Your task to perform on an android device: Open privacy settings Image 0: 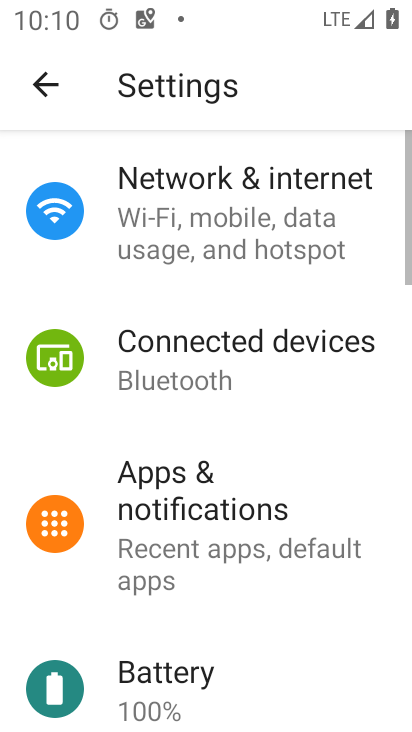
Step 0: press home button
Your task to perform on an android device: Open privacy settings Image 1: 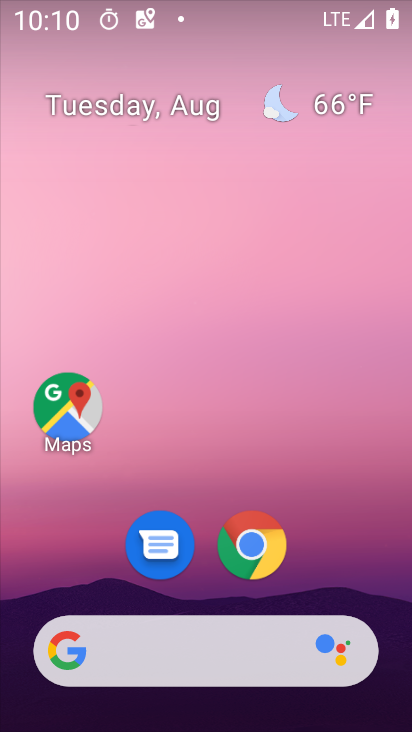
Step 1: drag from (213, 657) to (224, 231)
Your task to perform on an android device: Open privacy settings Image 2: 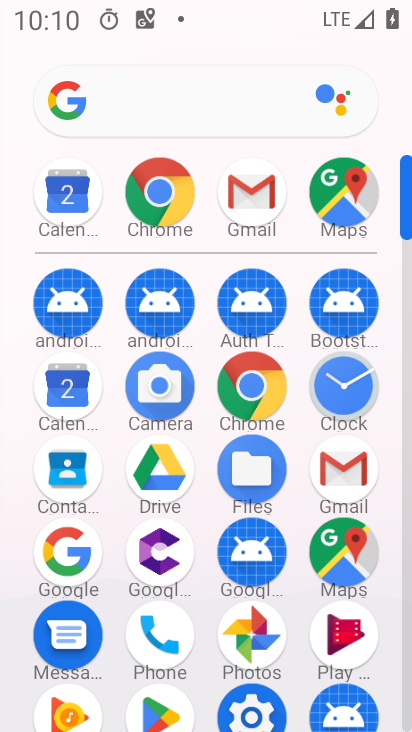
Step 2: drag from (252, 497) to (249, 75)
Your task to perform on an android device: Open privacy settings Image 3: 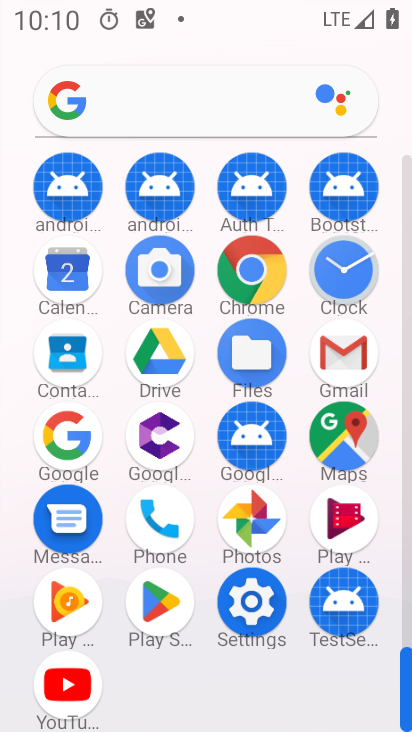
Step 3: click (254, 615)
Your task to perform on an android device: Open privacy settings Image 4: 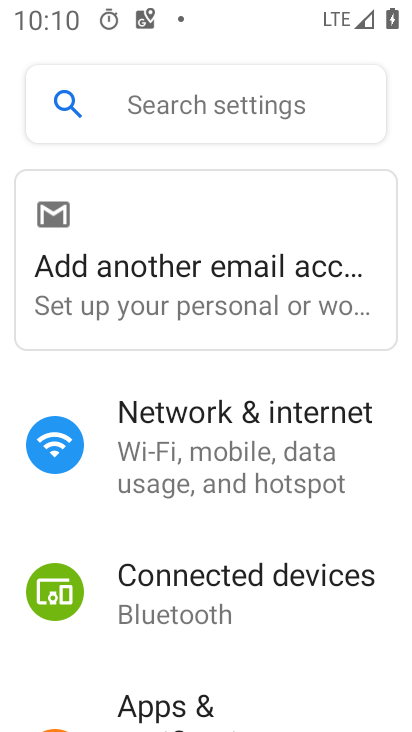
Step 4: drag from (226, 546) to (256, 131)
Your task to perform on an android device: Open privacy settings Image 5: 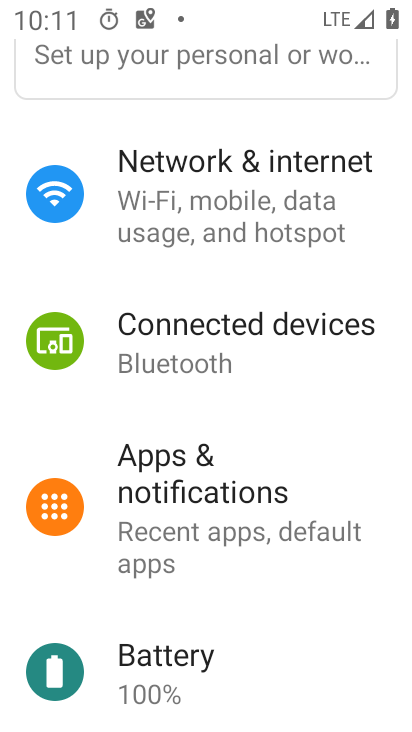
Step 5: drag from (242, 530) to (266, 189)
Your task to perform on an android device: Open privacy settings Image 6: 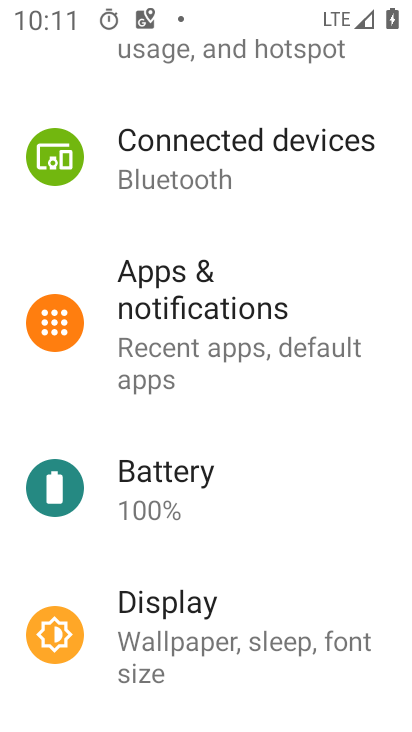
Step 6: drag from (210, 566) to (298, 98)
Your task to perform on an android device: Open privacy settings Image 7: 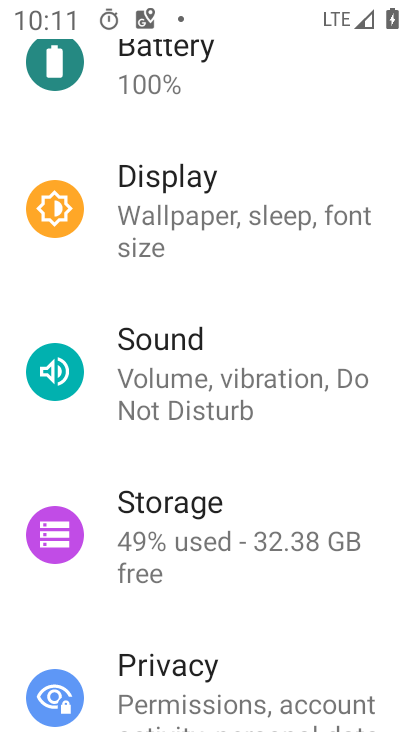
Step 7: click (209, 668)
Your task to perform on an android device: Open privacy settings Image 8: 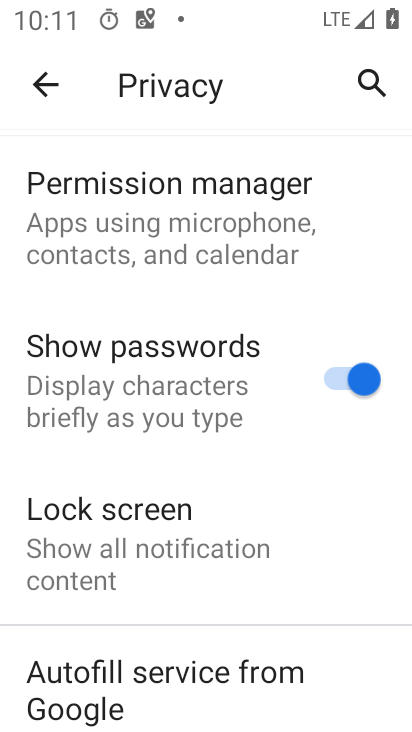
Step 8: task complete